Your task to perform on an android device: turn off location history Image 0: 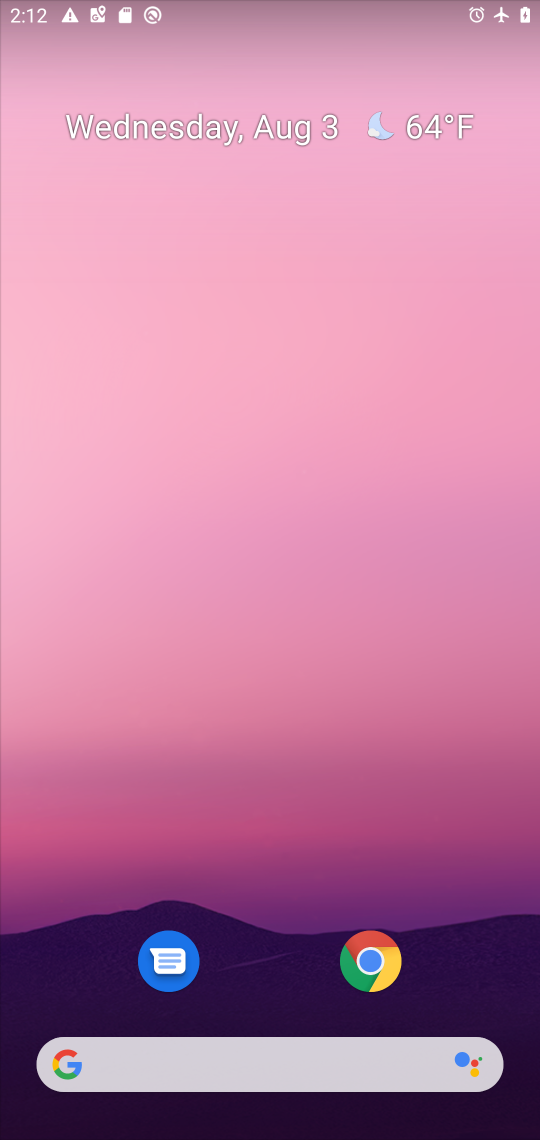
Step 0: drag from (286, 882) to (327, 118)
Your task to perform on an android device: turn off location history Image 1: 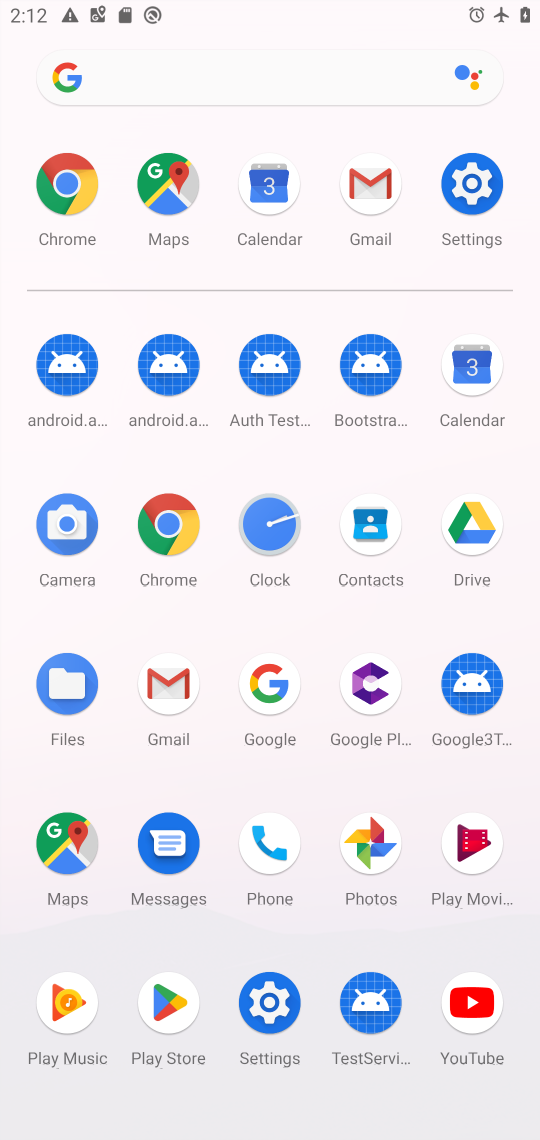
Step 1: click (163, 194)
Your task to perform on an android device: turn off location history Image 2: 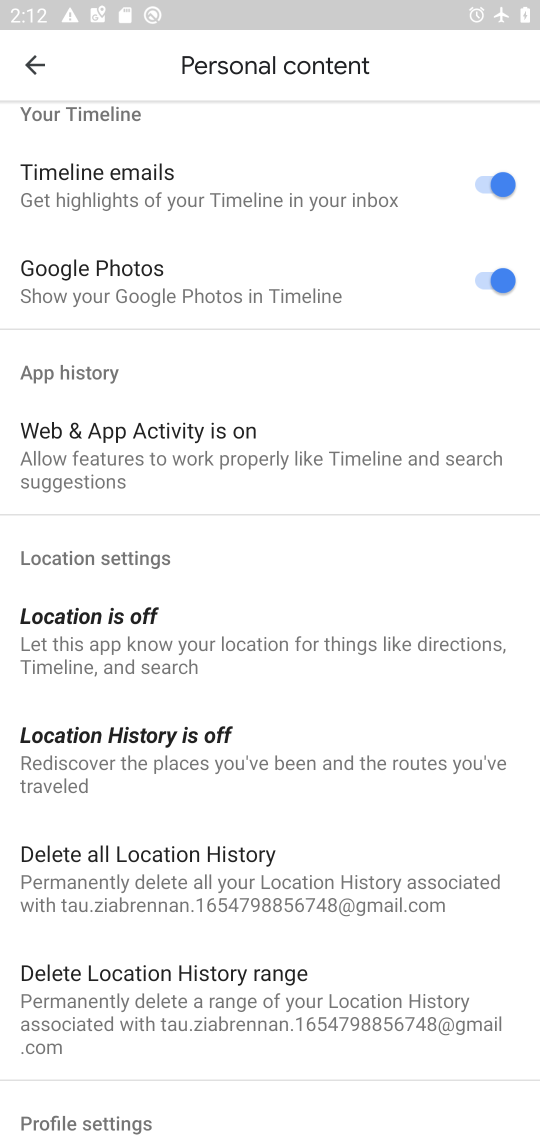
Step 2: click (115, 757)
Your task to perform on an android device: turn off location history Image 3: 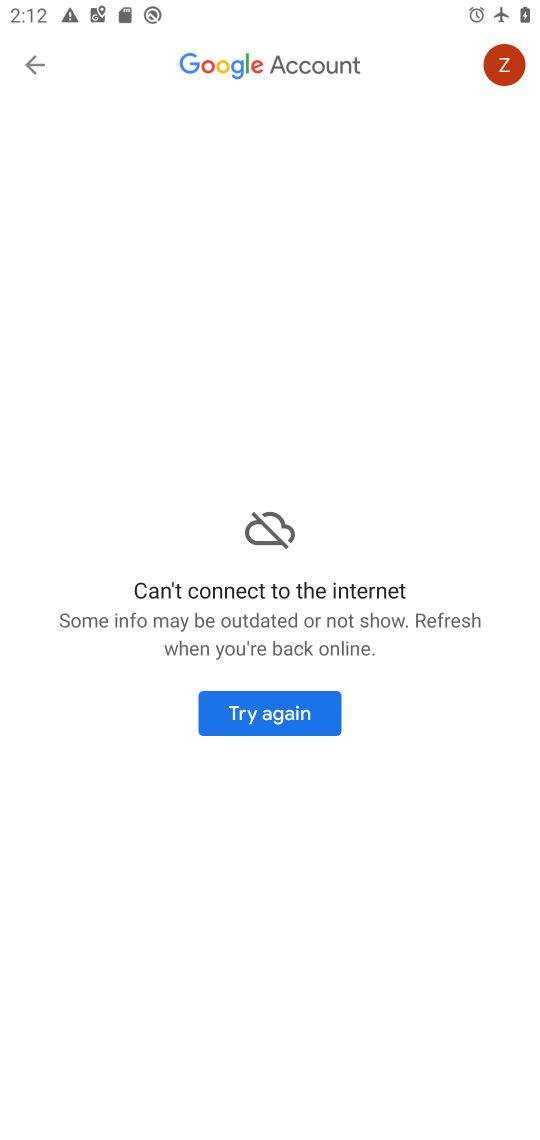
Step 3: task complete